Your task to perform on an android device: turn off translation in the chrome app Image 0: 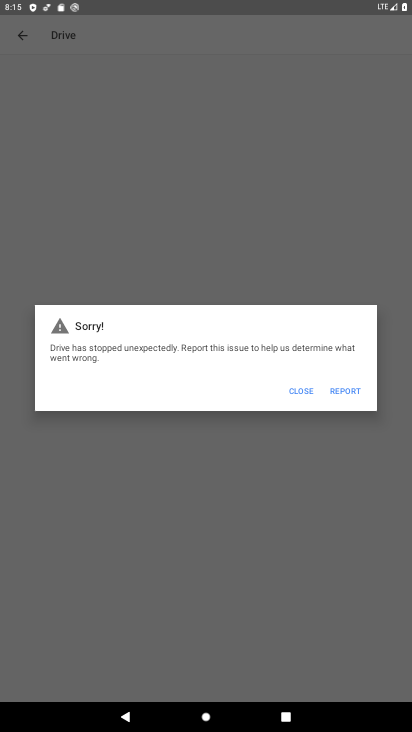
Step 0: press home button
Your task to perform on an android device: turn off translation in the chrome app Image 1: 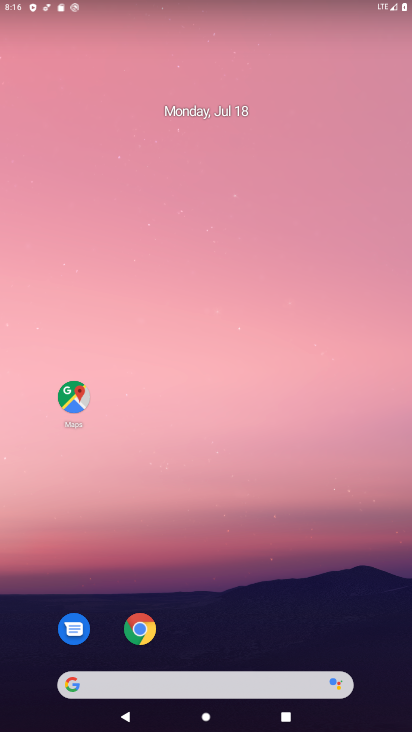
Step 1: drag from (202, 327) to (204, 162)
Your task to perform on an android device: turn off translation in the chrome app Image 2: 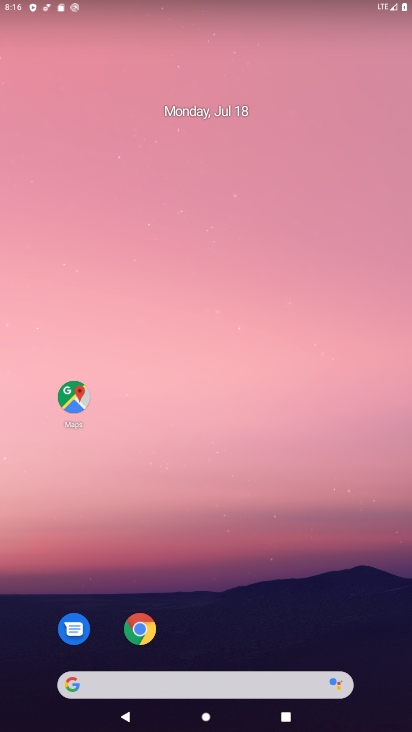
Step 2: drag from (205, 597) to (242, 85)
Your task to perform on an android device: turn off translation in the chrome app Image 3: 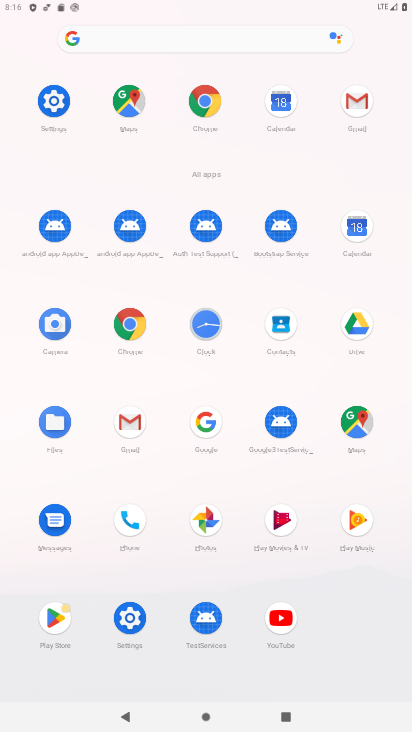
Step 3: click (133, 337)
Your task to perform on an android device: turn off translation in the chrome app Image 4: 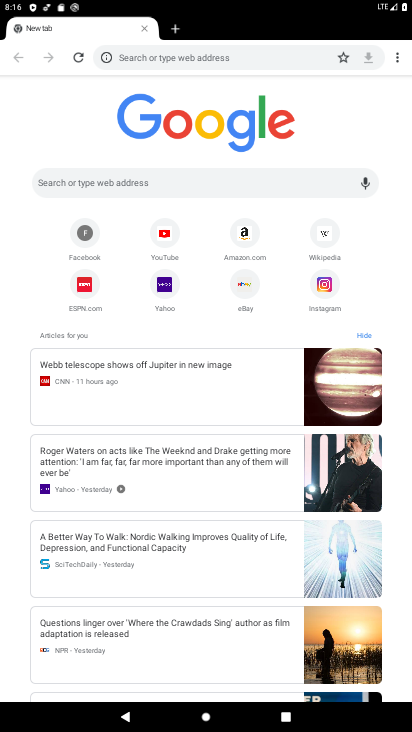
Step 4: click (394, 55)
Your task to perform on an android device: turn off translation in the chrome app Image 5: 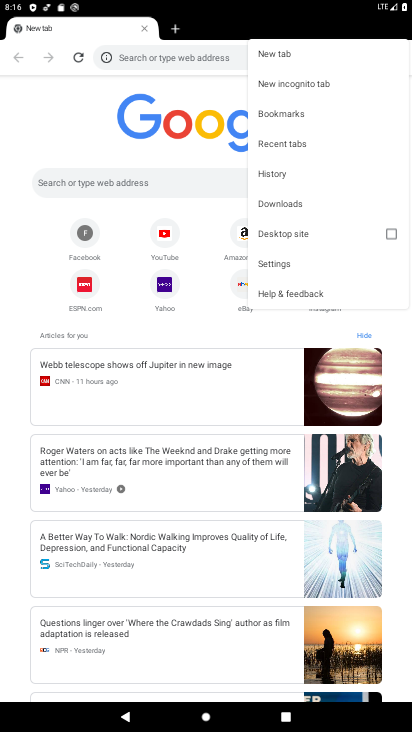
Step 5: click (283, 262)
Your task to perform on an android device: turn off translation in the chrome app Image 6: 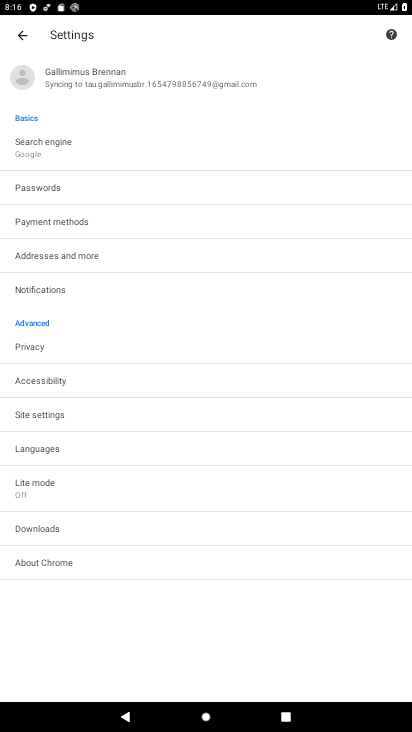
Step 6: click (49, 447)
Your task to perform on an android device: turn off translation in the chrome app Image 7: 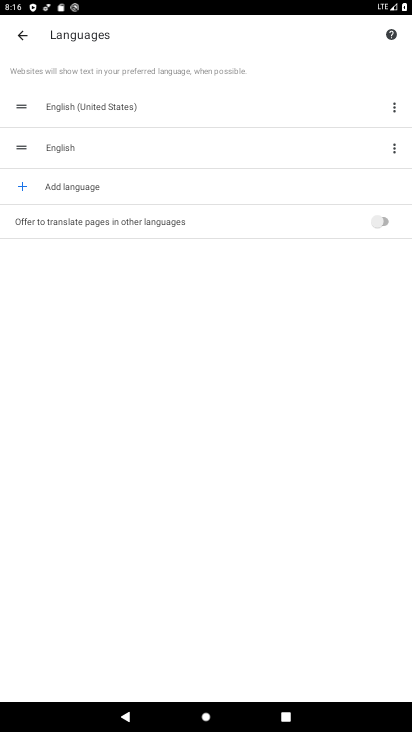
Step 7: task complete